Your task to perform on an android device: read, delete, or share a saved page in the chrome app Image 0: 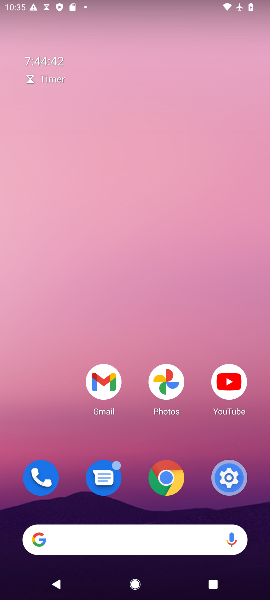
Step 0: click (162, 479)
Your task to perform on an android device: read, delete, or share a saved page in the chrome app Image 1: 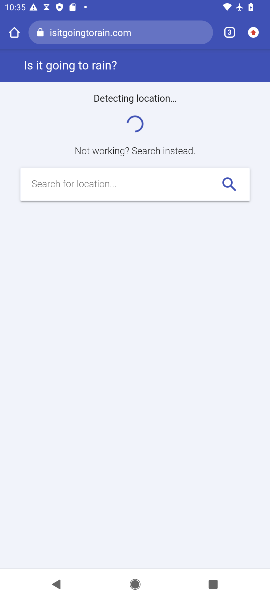
Step 1: click (257, 32)
Your task to perform on an android device: read, delete, or share a saved page in the chrome app Image 2: 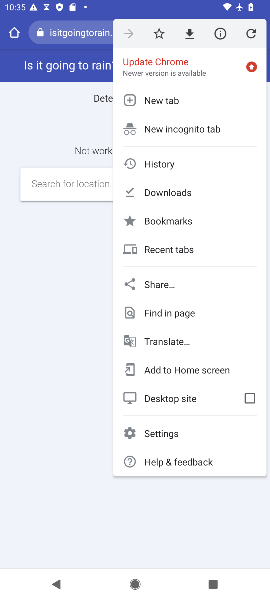
Step 2: click (187, 189)
Your task to perform on an android device: read, delete, or share a saved page in the chrome app Image 3: 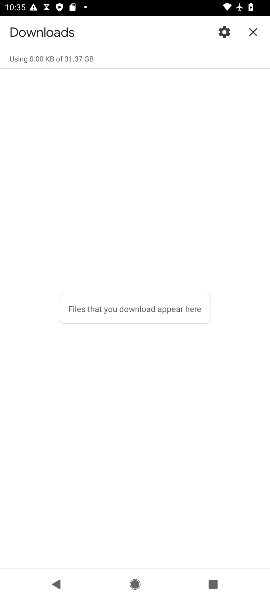
Step 3: task complete